Your task to perform on an android device: Open the calendar app, open the side menu, and click the "Day" option Image 0: 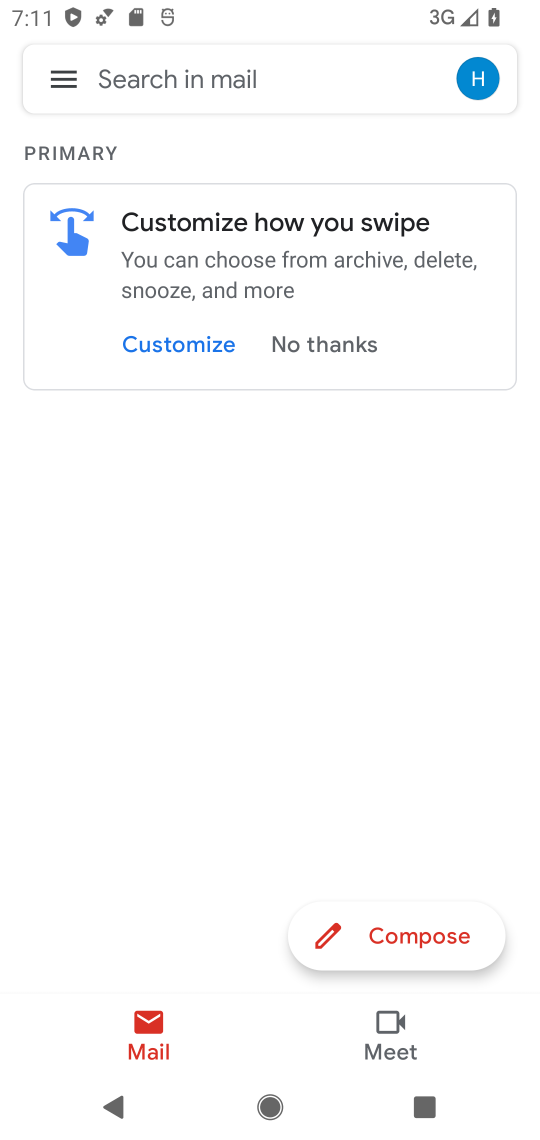
Step 0: press home button
Your task to perform on an android device: Open the calendar app, open the side menu, and click the "Day" option Image 1: 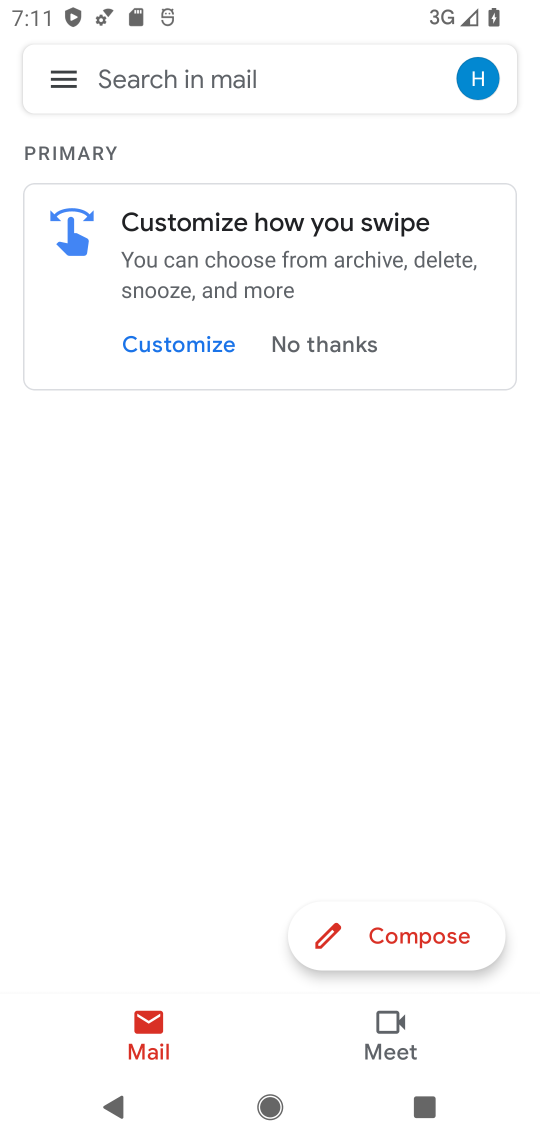
Step 1: press home button
Your task to perform on an android device: Open the calendar app, open the side menu, and click the "Day" option Image 2: 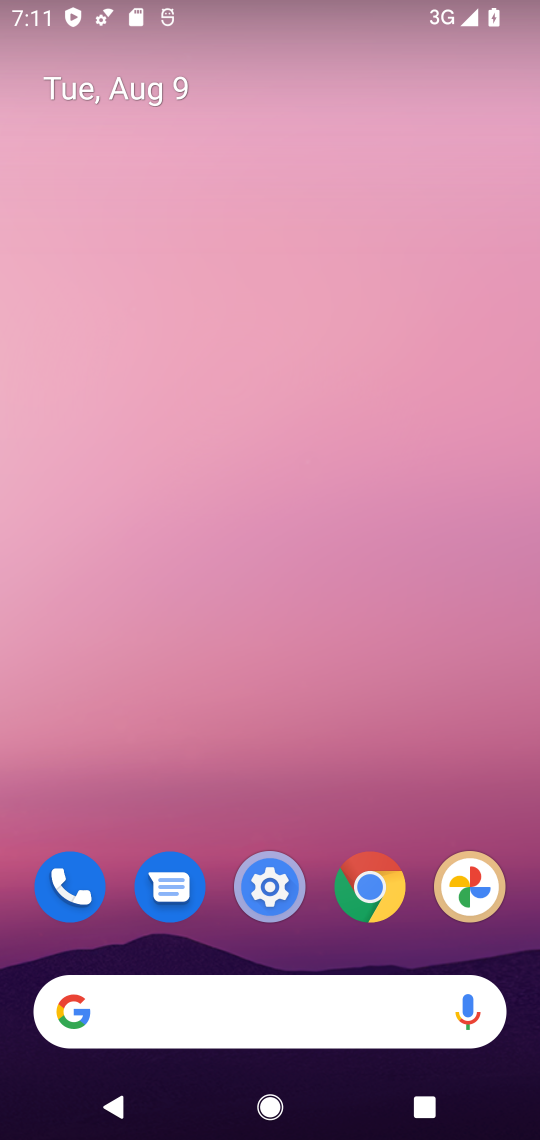
Step 2: drag from (298, 800) to (411, 4)
Your task to perform on an android device: Open the calendar app, open the side menu, and click the "Day" option Image 3: 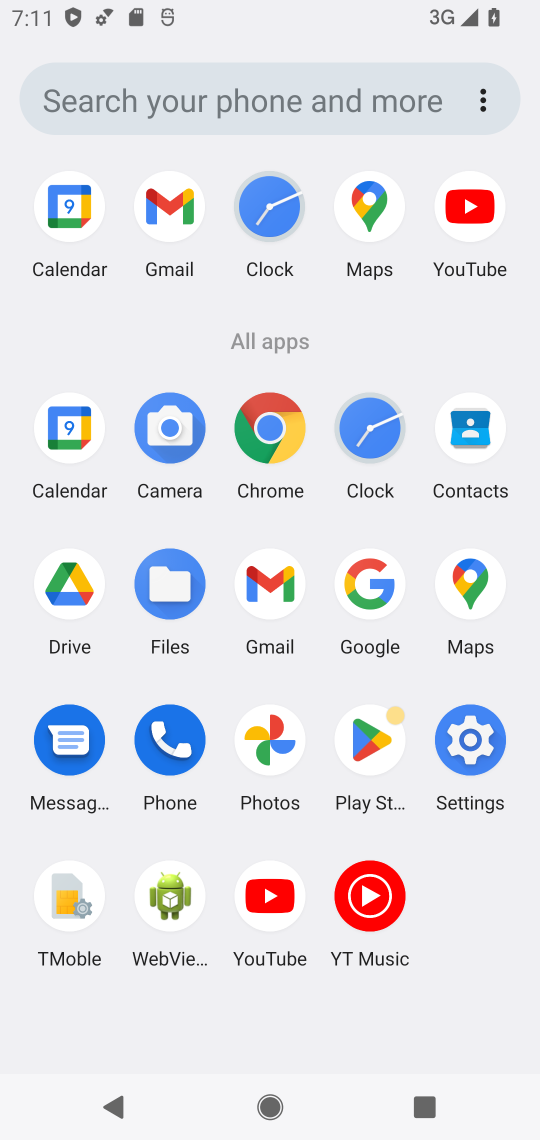
Step 3: click (77, 209)
Your task to perform on an android device: Open the calendar app, open the side menu, and click the "Day" option Image 4: 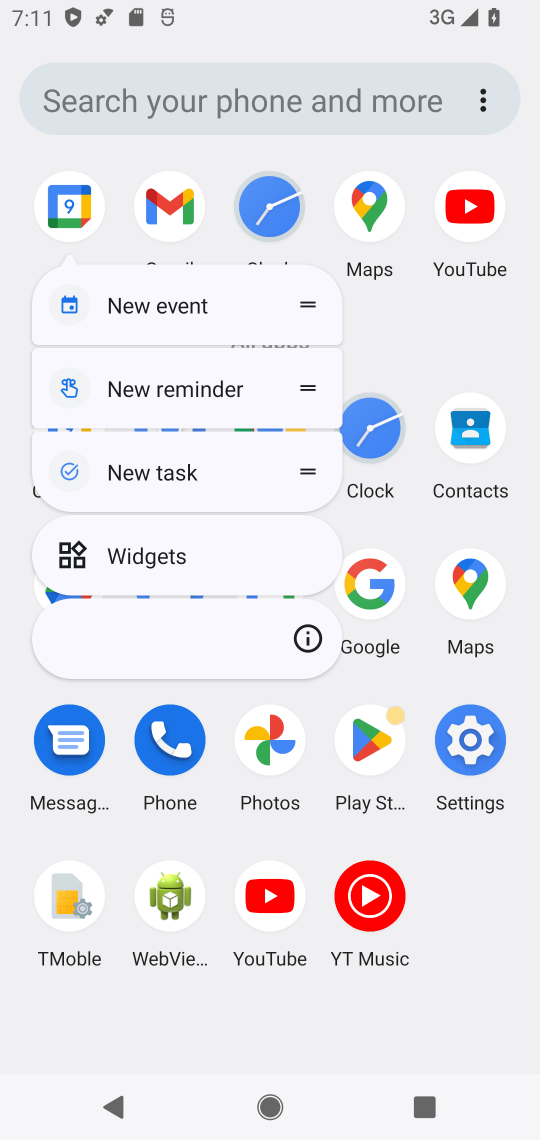
Step 4: click (71, 207)
Your task to perform on an android device: Open the calendar app, open the side menu, and click the "Day" option Image 5: 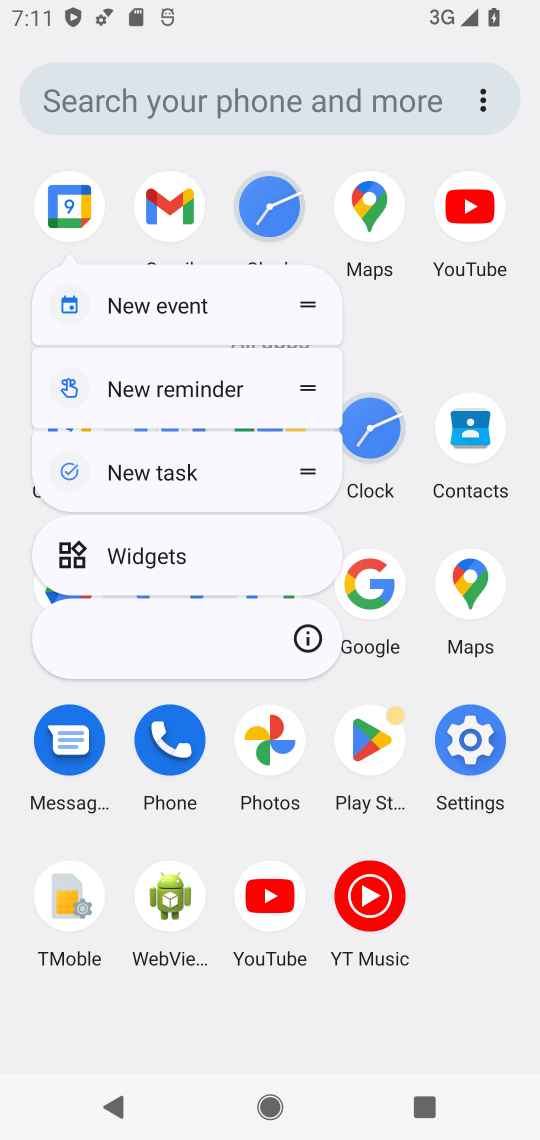
Step 5: click (71, 209)
Your task to perform on an android device: Open the calendar app, open the side menu, and click the "Day" option Image 6: 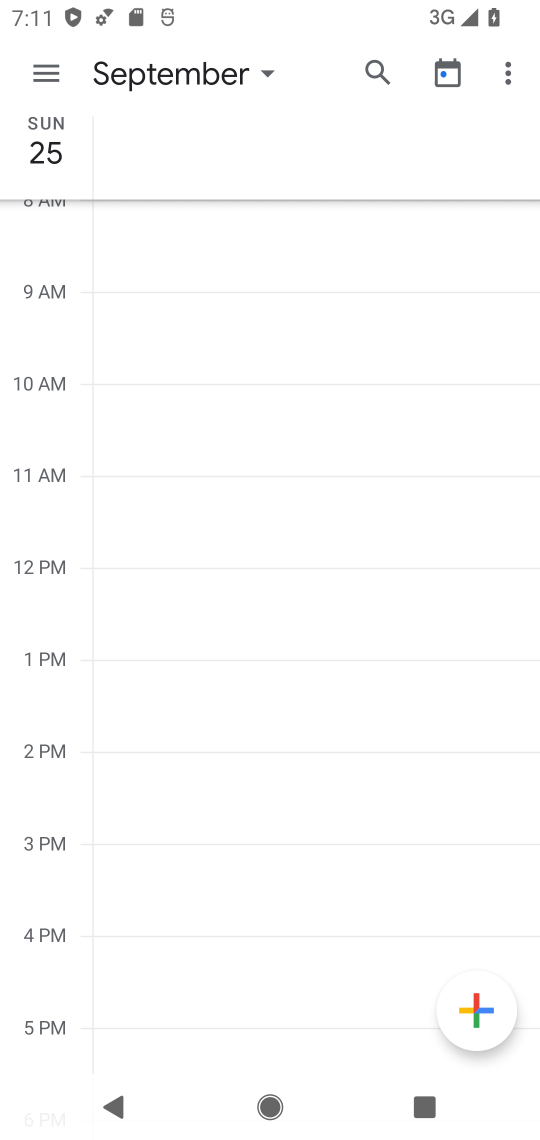
Step 6: click (46, 64)
Your task to perform on an android device: Open the calendar app, open the side menu, and click the "Day" option Image 7: 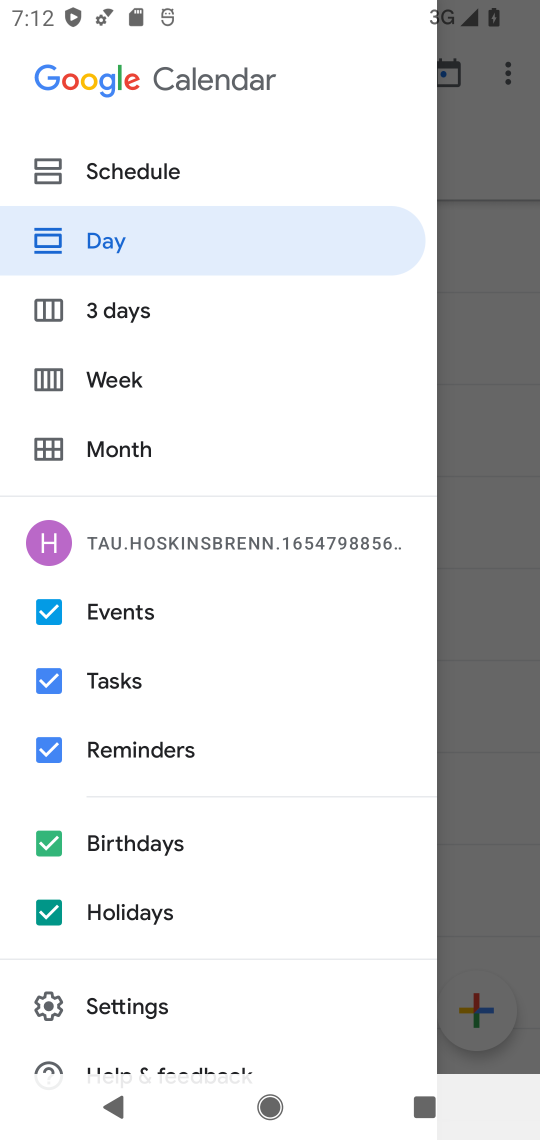
Step 7: click (79, 227)
Your task to perform on an android device: Open the calendar app, open the side menu, and click the "Day" option Image 8: 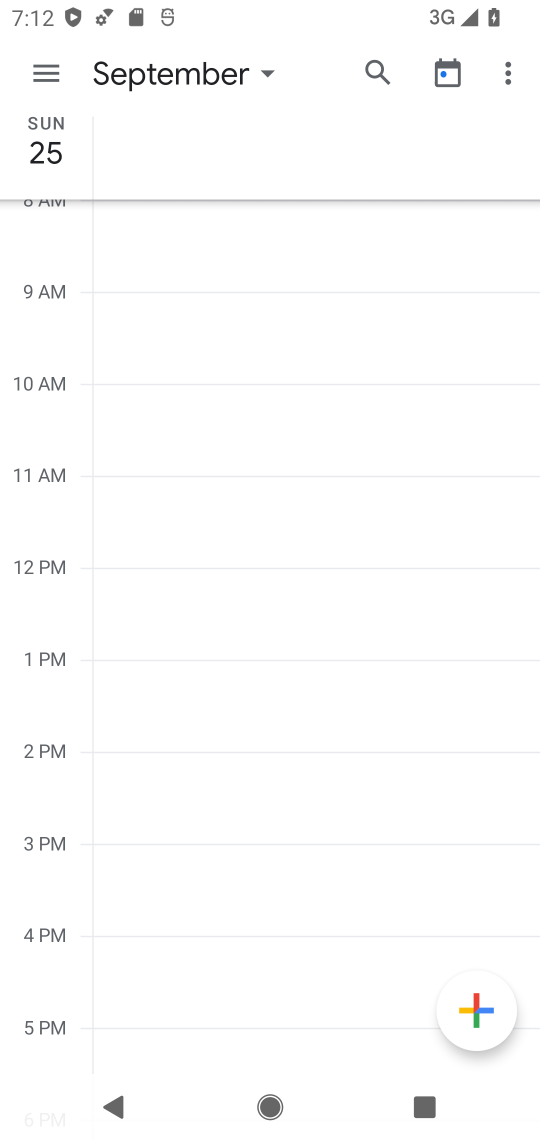
Step 8: task complete